Your task to perform on an android device: Go to display settings Image 0: 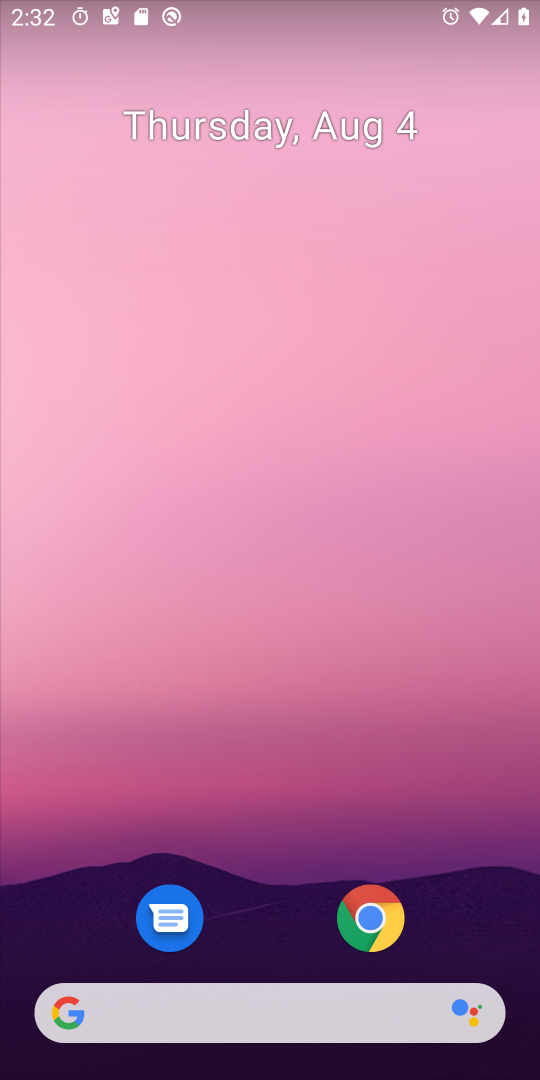
Step 0: drag from (280, 894) to (362, 221)
Your task to perform on an android device: Go to display settings Image 1: 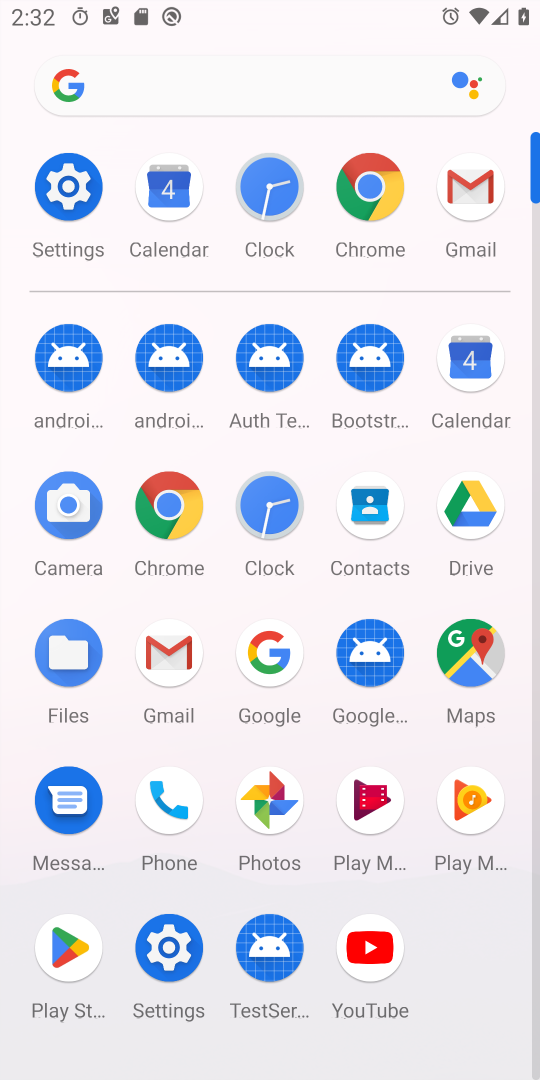
Step 1: click (72, 205)
Your task to perform on an android device: Go to display settings Image 2: 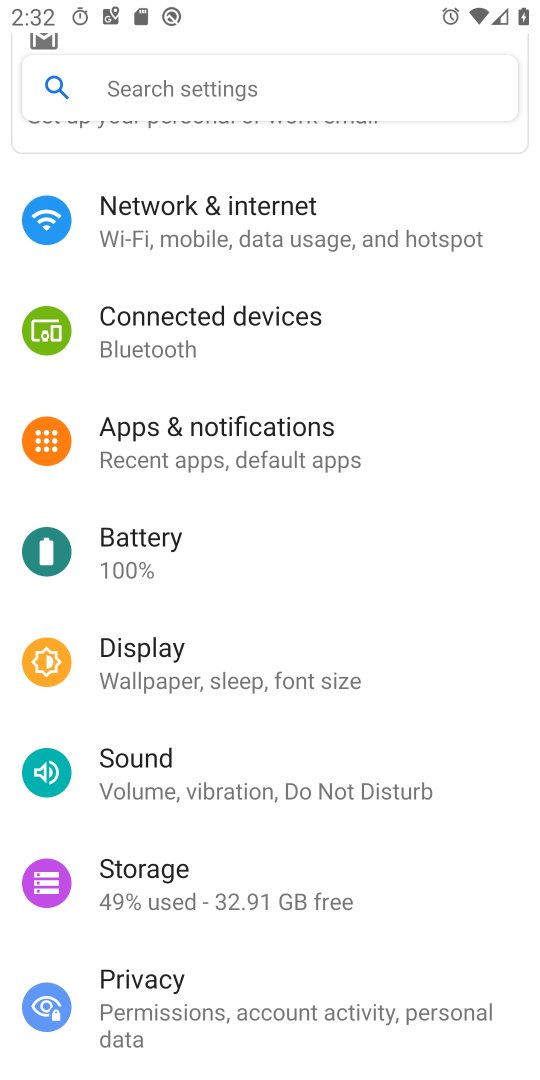
Step 2: click (207, 659)
Your task to perform on an android device: Go to display settings Image 3: 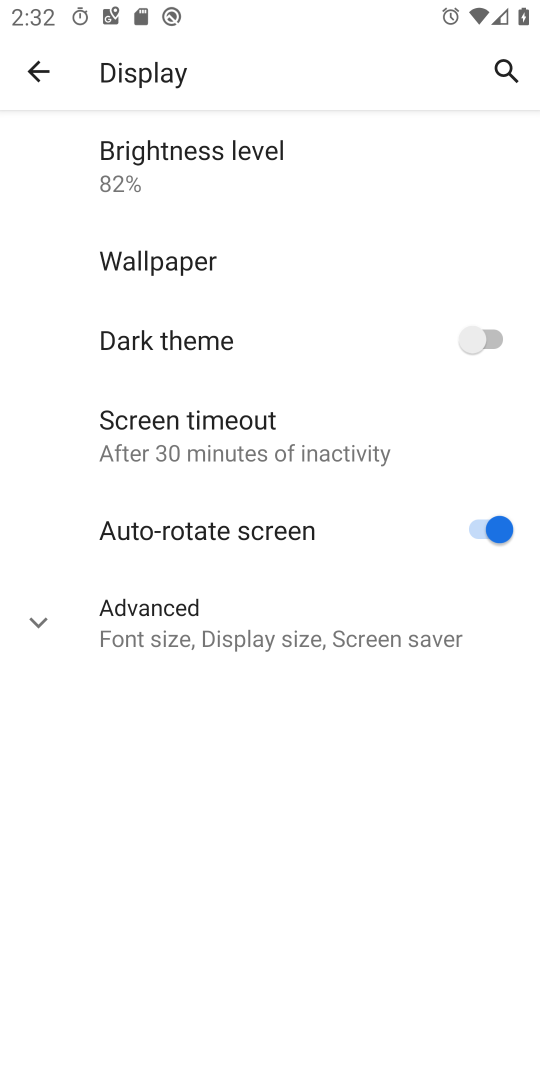
Step 3: task complete